Your task to perform on an android device: Go to Yahoo.com Image 0: 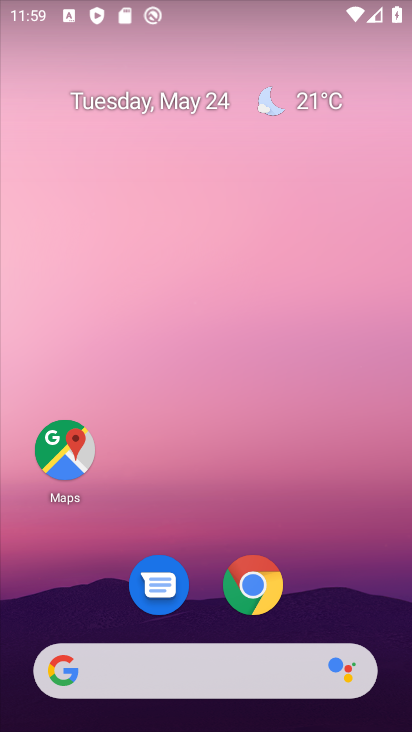
Step 0: click (266, 672)
Your task to perform on an android device: Go to Yahoo.com Image 1: 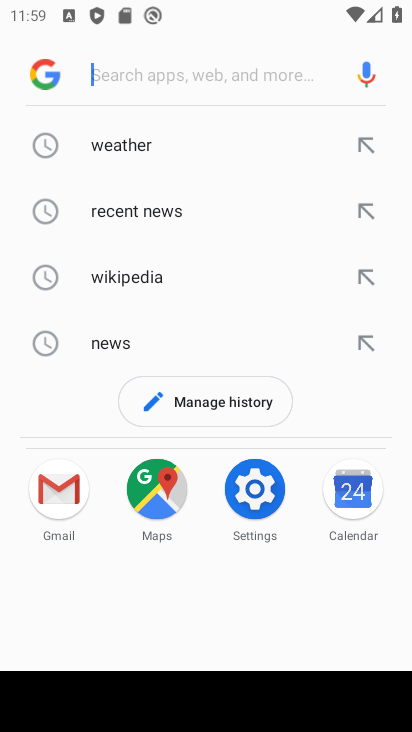
Step 1: type "yahoo.com"
Your task to perform on an android device: Go to Yahoo.com Image 2: 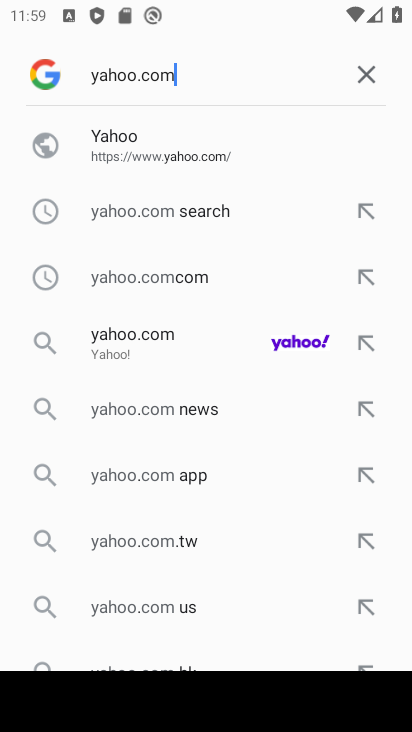
Step 2: click (169, 345)
Your task to perform on an android device: Go to Yahoo.com Image 3: 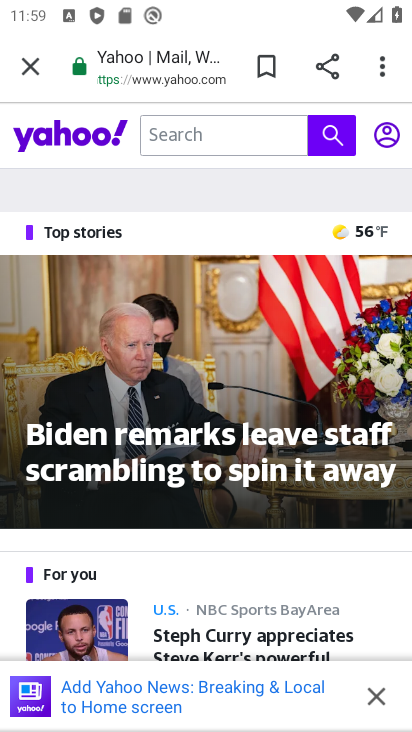
Step 3: task complete